Your task to perform on an android device: Open calendar and show me the third week of next month Image 0: 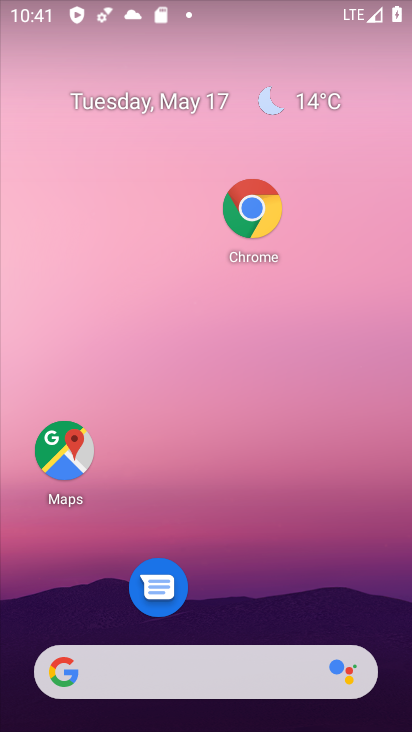
Step 0: click (145, 90)
Your task to perform on an android device: Open calendar and show me the third week of next month Image 1: 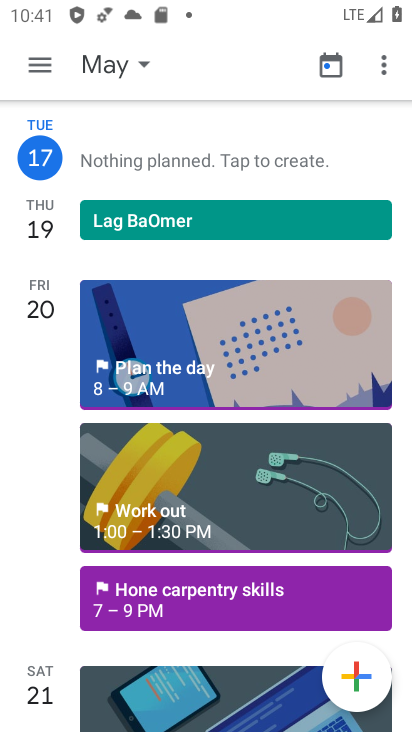
Step 1: click (35, 64)
Your task to perform on an android device: Open calendar and show me the third week of next month Image 2: 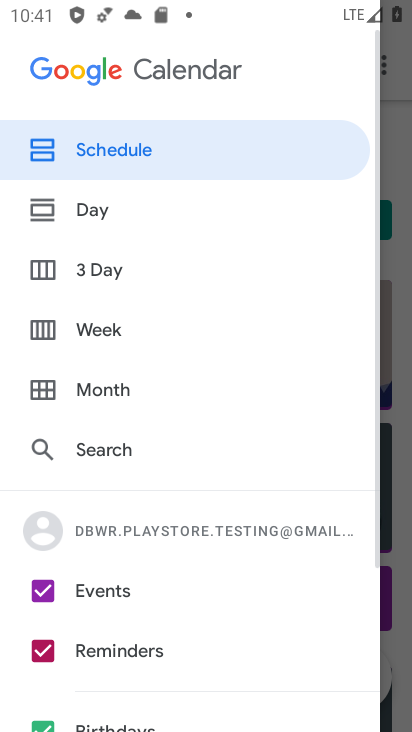
Step 2: click (122, 319)
Your task to perform on an android device: Open calendar and show me the third week of next month Image 3: 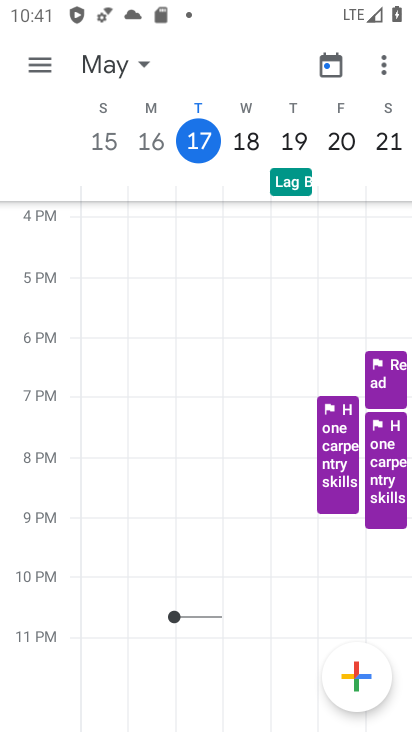
Step 3: click (129, 61)
Your task to perform on an android device: Open calendar and show me the third week of next month Image 4: 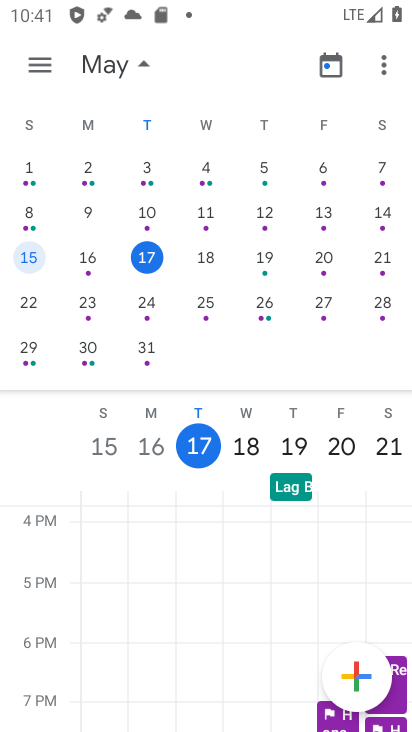
Step 4: drag from (347, 298) to (41, 262)
Your task to perform on an android device: Open calendar and show me the third week of next month Image 5: 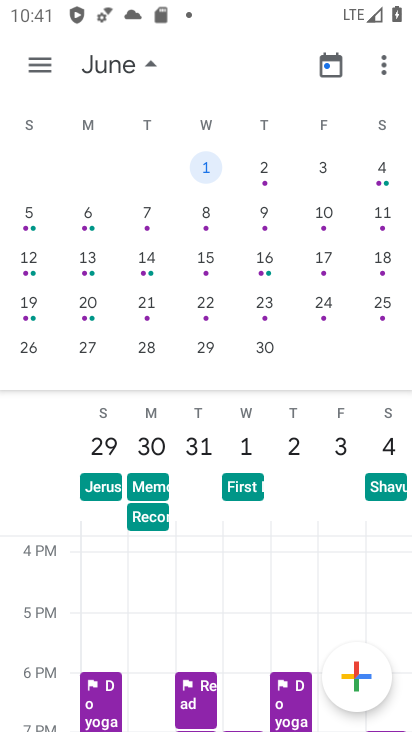
Step 5: click (212, 258)
Your task to perform on an android device: Open calendar and show me the third week of next month Image 6: 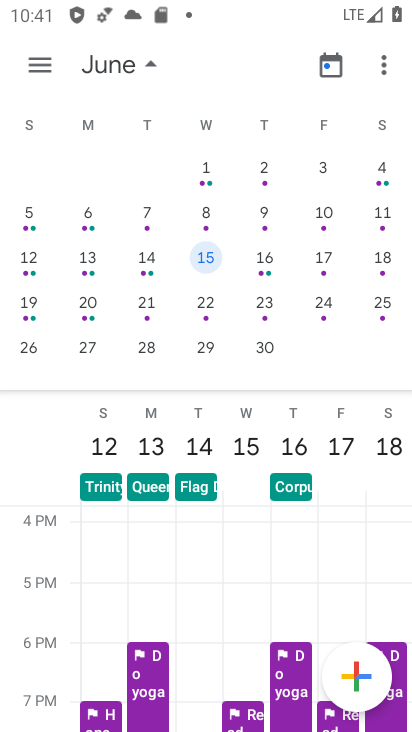
Step 6: task complete